Your task to perform on an android device: add a contact in the contacts app Image 0: 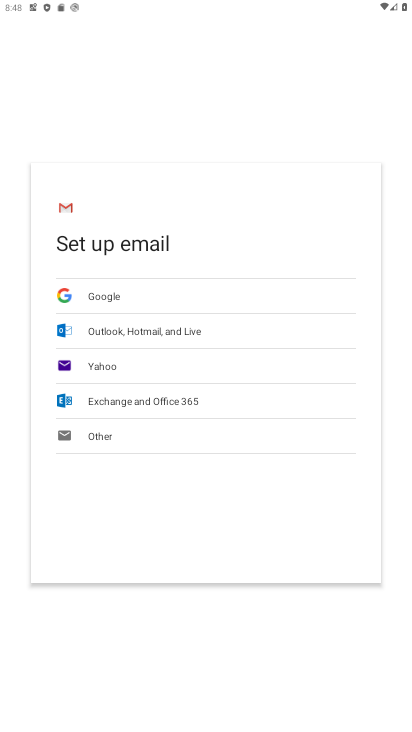
Step 0: press home button
Your task to perform on an android device: add a contact in the contacts app Image 1: 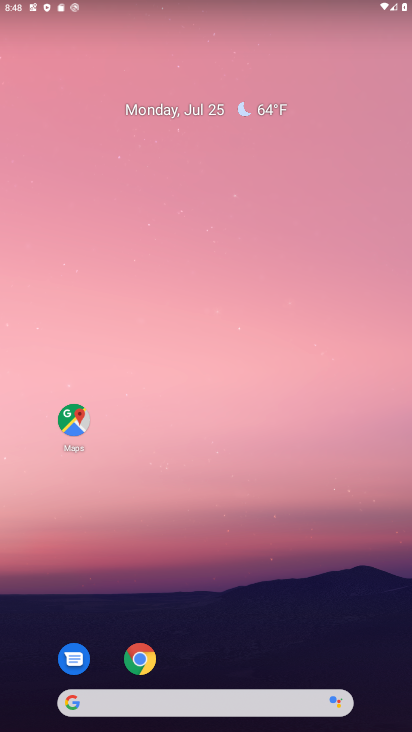
Step 1: drag from (334, 631) to (347, 160)
Your task to perform on an android device: add a contact in the contacts app Image 2: 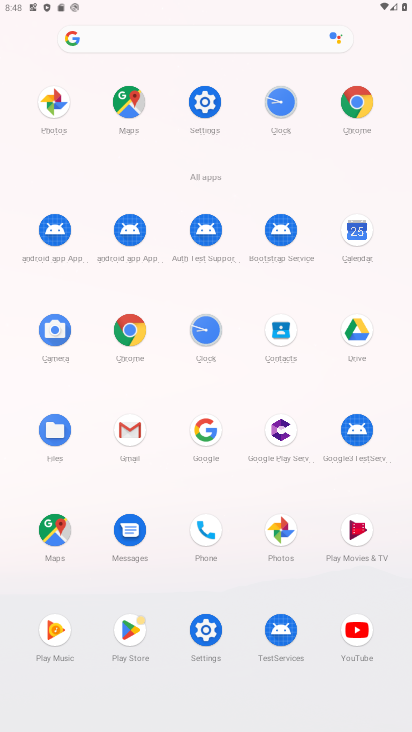
Step 2: click (278, 334)
Your task to perform on an android device: add a contact in the contacts app Image 3: 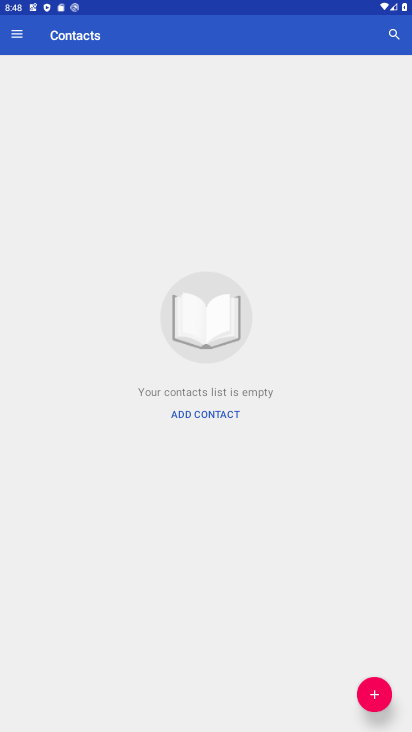
Step 3: click (373, 692)
Your task to perform on an android device: add a contact in the contacts app Image 4: 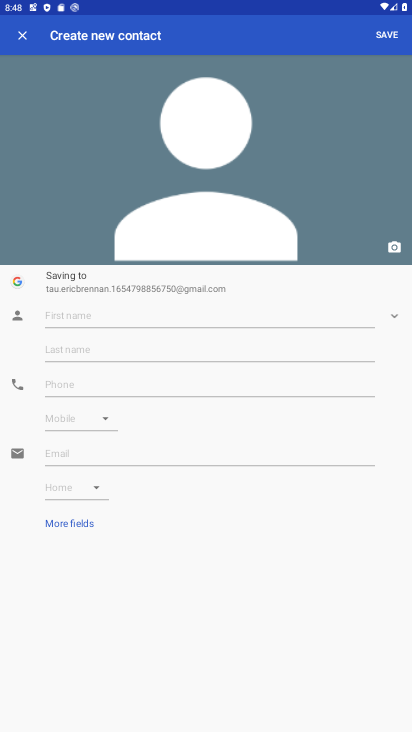
Step 4: click (272, 314)
Your task to perform on an android device: add a contact in the contacts app Image 5: 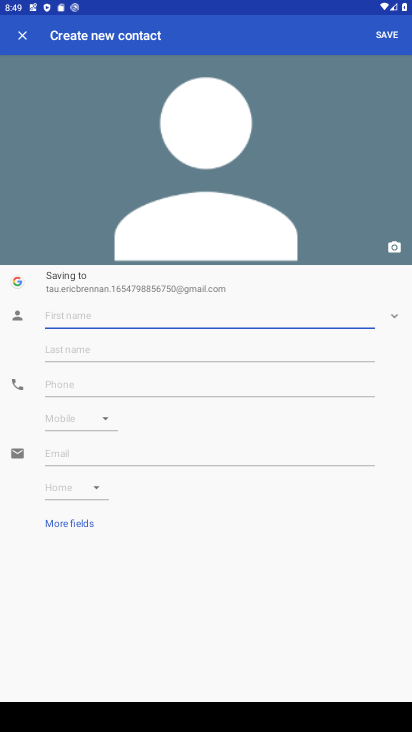
Step 5: type "fav"
Your task to perform on an android device: add a contact in the contacts app Image 6: 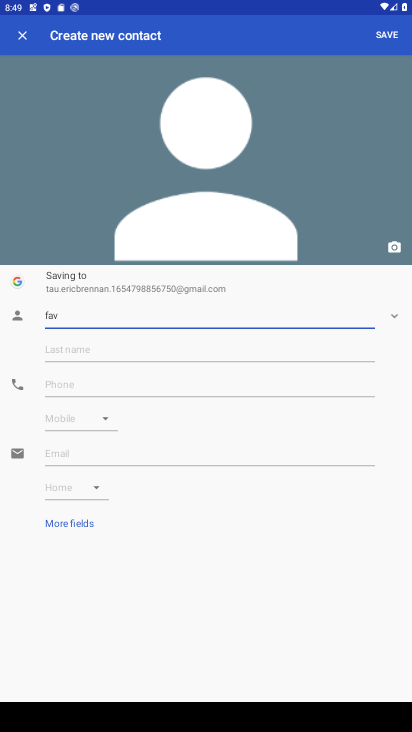
Step 6: click (274, 370)
Your task to perform on an android device: add a contact in the contacts app Image 7: 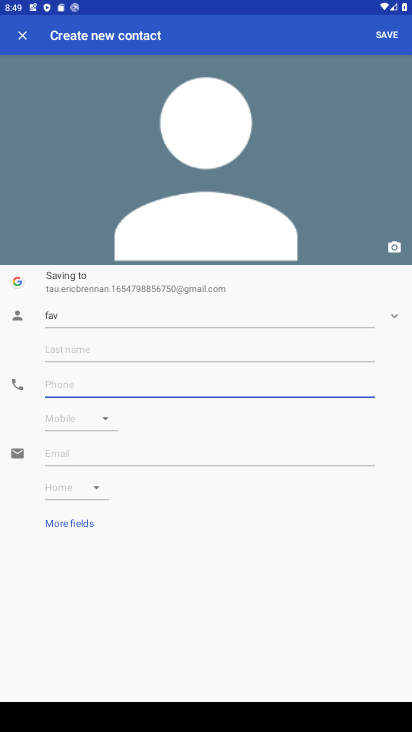
Step 7: type "1234567890"
Your task to perform on an android device: add a contact in the contacts app Image 8: 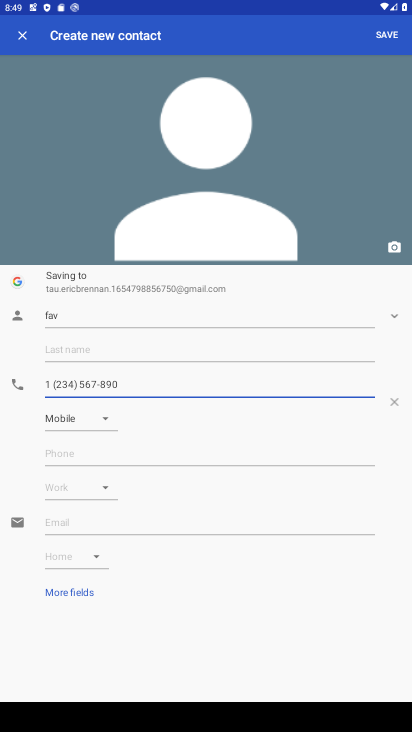
Step 8: click (385, 35)
Your task to perform on an android device: add a contact in the contacts app Image 9: 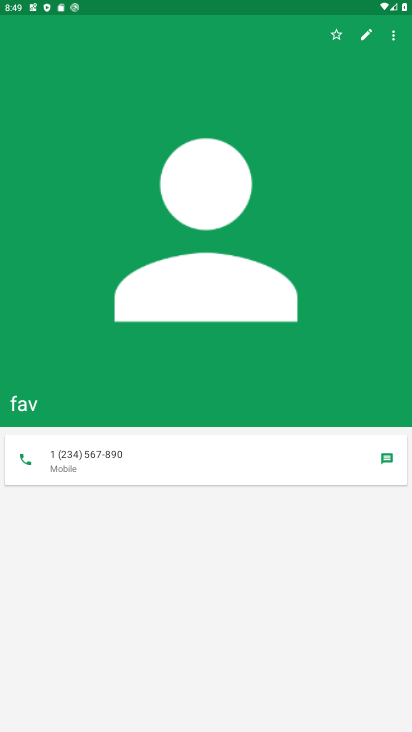
Step 9: task complete